Your task to perform on an android device: Open Wikipedia Image 0: 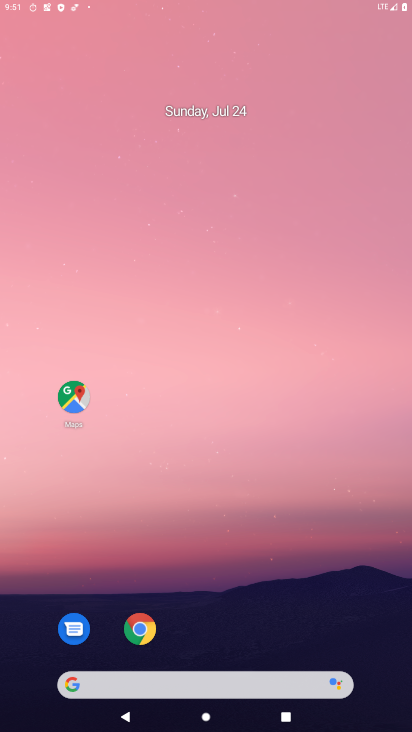
Step 0: press home button
Your task to perform on an android device: Open Wikipedia Image 1: 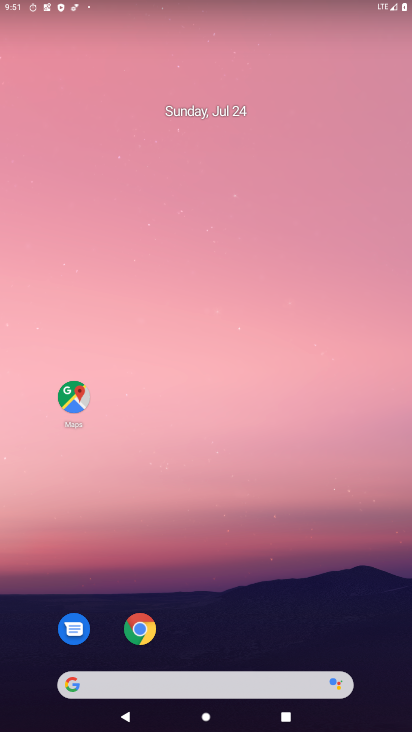
Step 1: click (60, 684)
Your task to perform on an android device: Open Wikipedia Image 2: 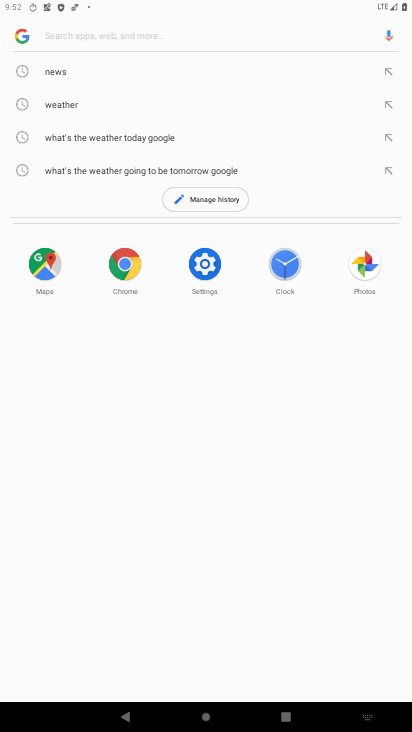
Step 2: type "Wikipedia"
Your task to perform on an android device: Open Wikipedia Image 3: 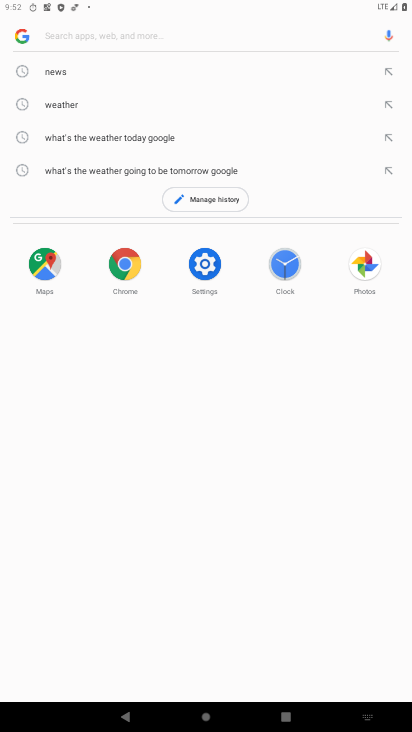
Step 3: click (59, 32)
Your task to perform on an android device: Open Wikipedia Image 4: 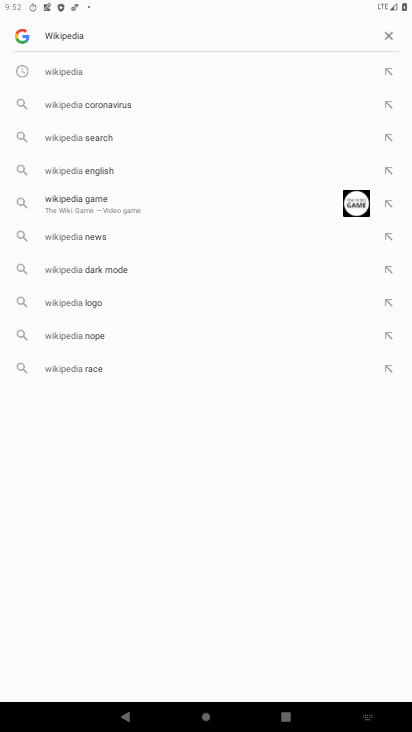
Step 4: press enter
Your task to perform on an android device: Open Wikipedia Image 5: 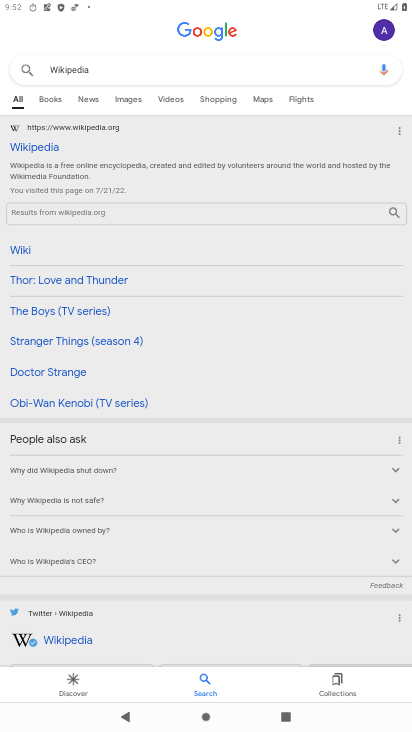
Step 5: click (32, 143)
Your task to perform on an android device: Open Wikipedia Image 6: 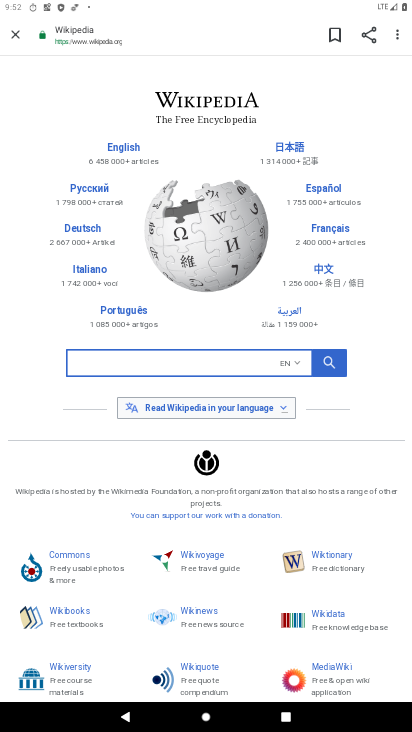
Step 6: task complete